Your task to perform on an android device: Check the weather Image 0: 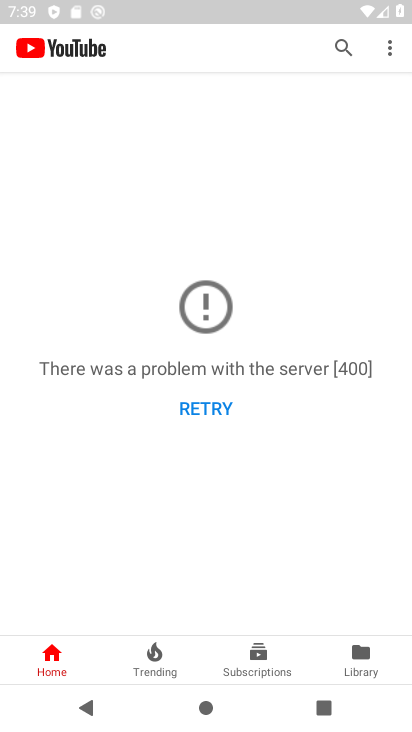
Step 0: press back button
Your task to perform on an android device: Check the weather Image 1: 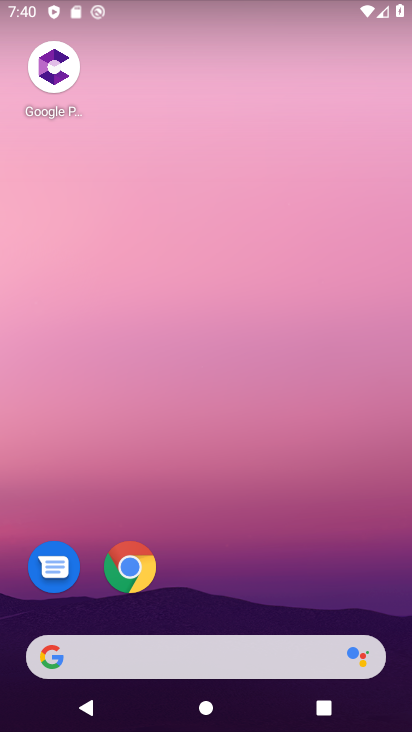
Step 1: click (163, 649)
Your task to perform on an android device: Check the weather Image 2: 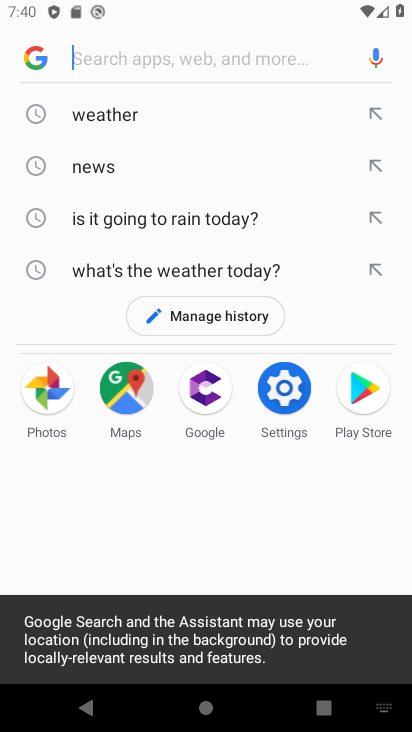
Step 2: click (126, 118)
Your task to perform on an android device: Check the weather Image 3: 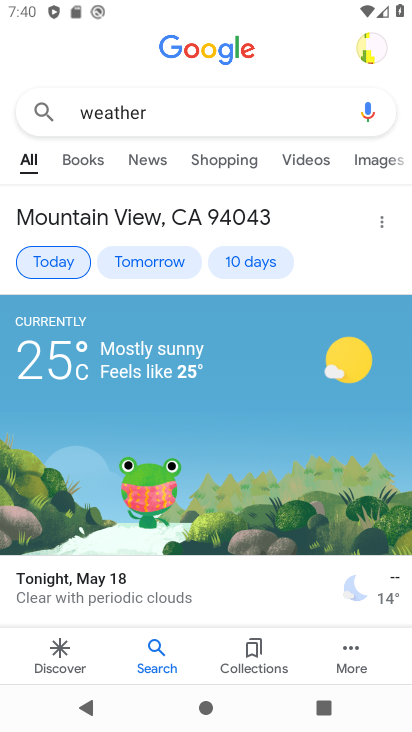
Step 3: task complete